Your task to perform on an android device: turn on javascript in the chrome app Image 0: 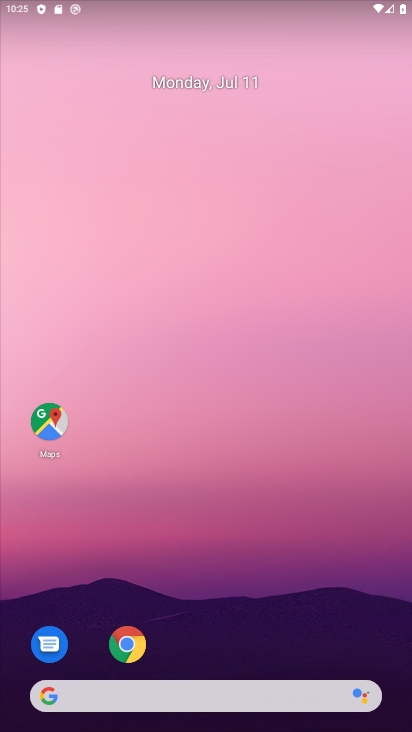
Step 0: drag from (204, 633) to (385, 30)
Your task to perform on an android device: turn on javascript in the chrome app Image 1: 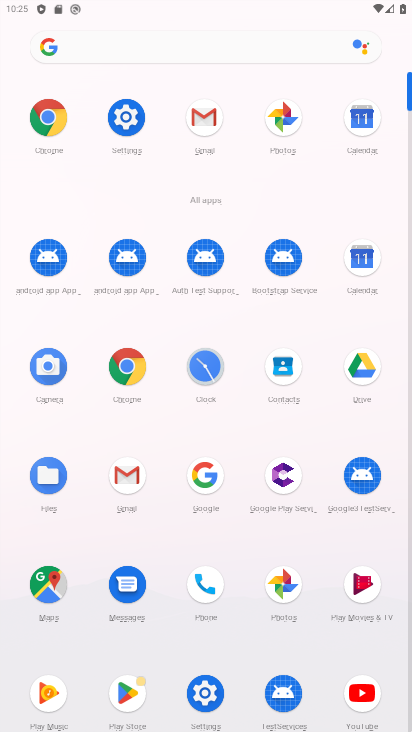
Step 1: click (133, 374)
Your task to perform on an android device: turn on javascript in the chrome app Image 2: 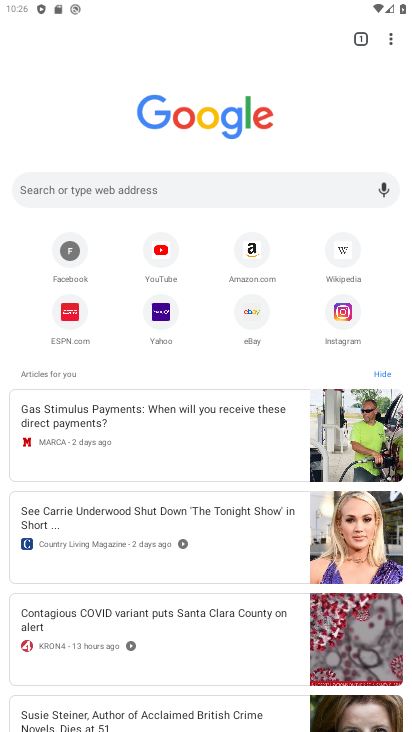
Step 2: click (392, 37)
Your task to perform on an android device: turn on javascript in the chrome app Image 3: 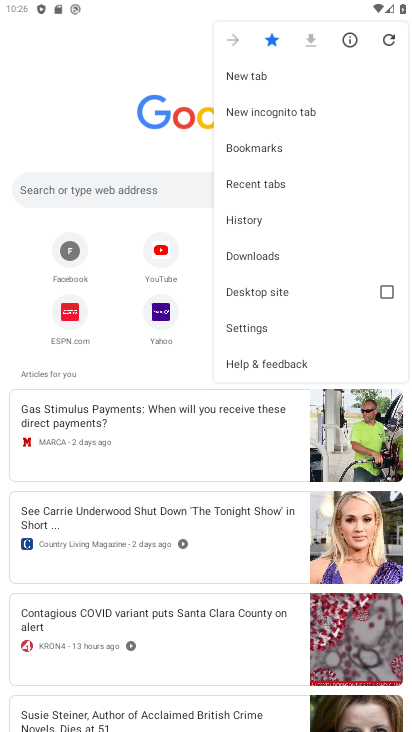
Step 3: click (258, 326)
Your task to perform on an android device: turn on javascript in the chrome app Image 4: 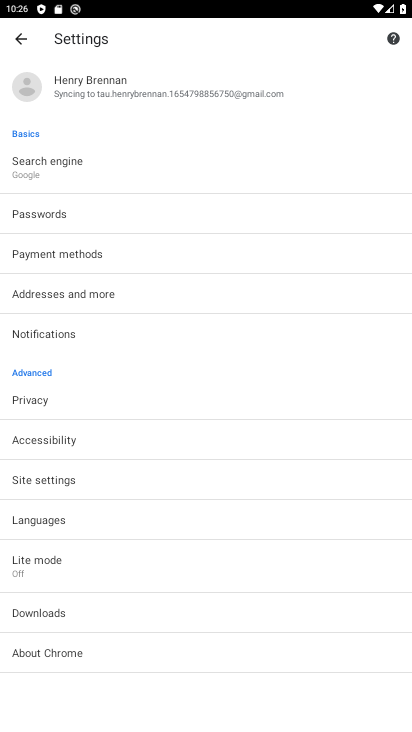
Step 4: click (60, 485)
Your task to perform on an android device: turn on javascript in the chrome app Image 5: 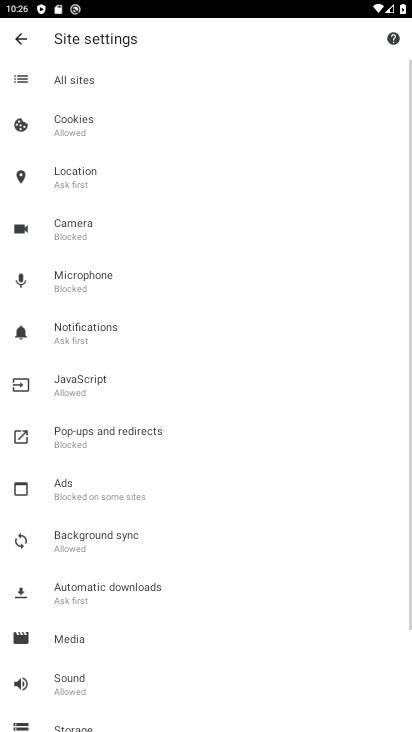
Step 5: click (88, 390)
Your task to perform on an android device: turn on javascript in the chrome app Image 6: 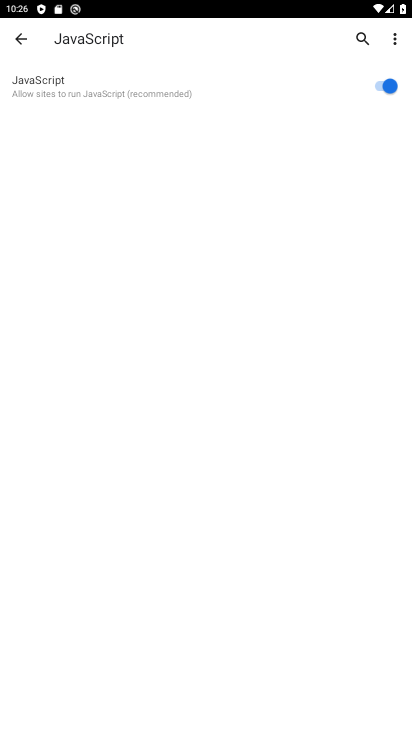
Step 6: task complete